Your task to perform on an android device: turn off airplane mode Image 0: 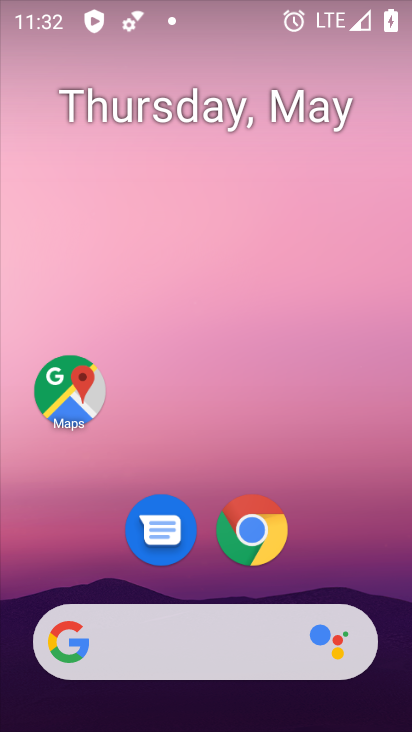
Step 0: drag from (352, 601) to (395, 42)
Your task to perform on an android device: turn off airplane mode Image 1: 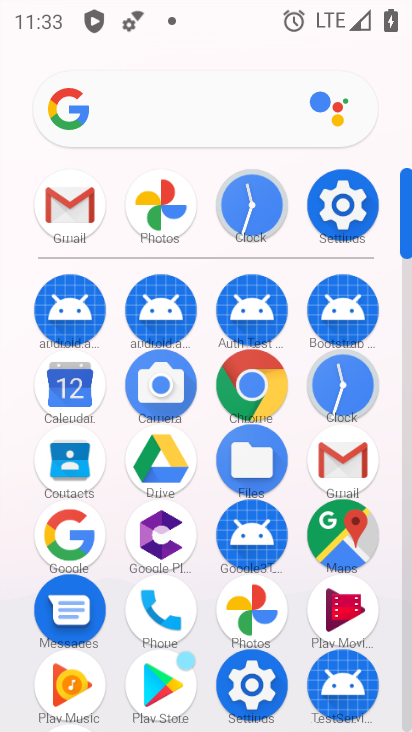
Step 1: click (321, 197)
Your task to perform on an android device: turn off airplane mode Image 2: 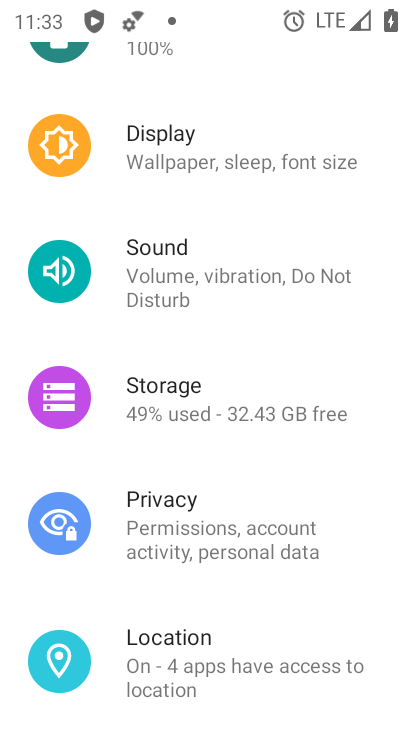
Step 2: drag from (177, 181) to (194, 633)
Your task to perform on an android device: turn off airplane mode Image 3: 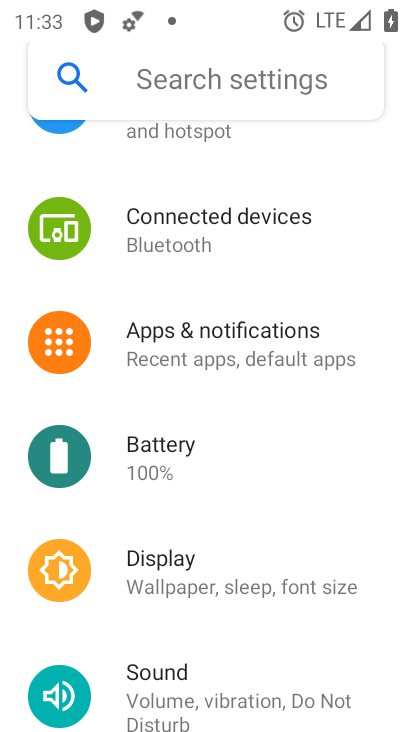
Step 3: drag from (187, 352) to (196, 642)
Your task to perform on an android device: turn off airplane mode Image 4: 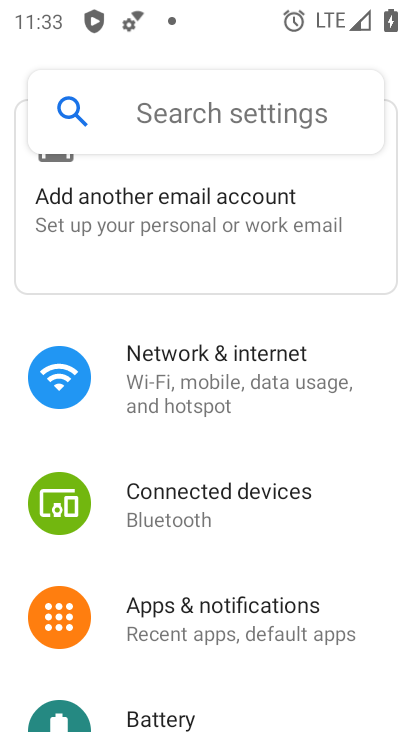
Step 4: click (182, 395)
Your task to perform on an android device: turn off airplane mode Image 5: 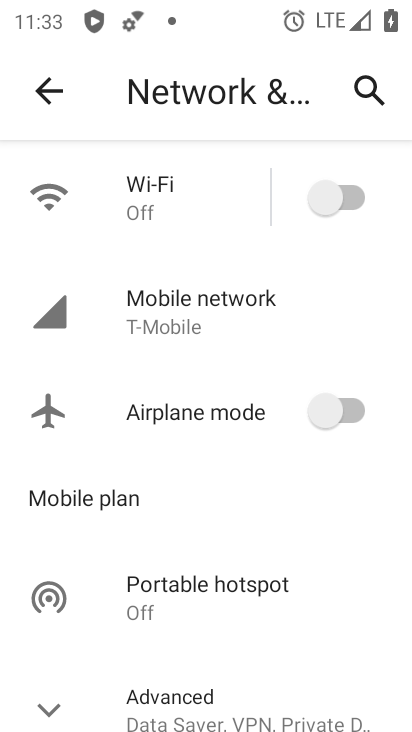
Step 5: task complete